Your task to perform on an android device: snooze an email in the gmail app Image 0: 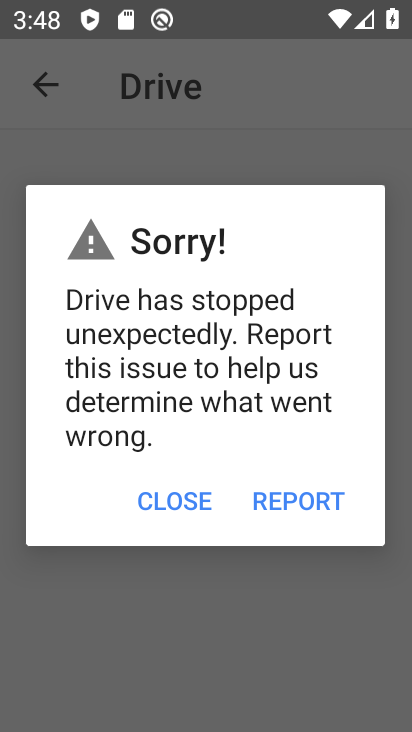
Step 0: press home button
Your task to perform on an android device: snooze an email in the gmail app Image 1: 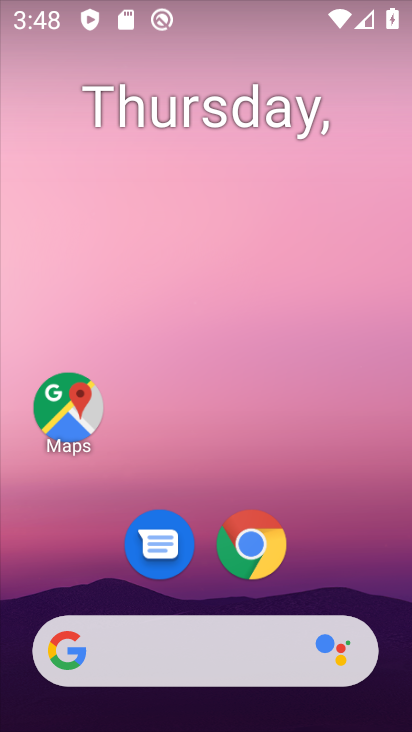
Step 1: drag from (397, 388) to (407, 21)
Your task to perform on an android device: snooze an email in the gmail app Image 2: 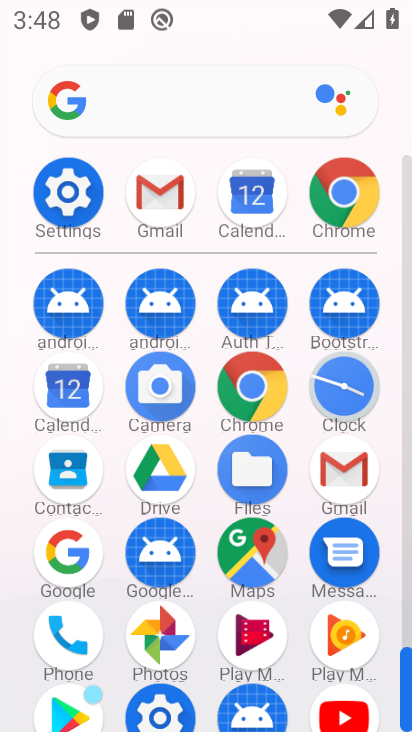
Step 2: click (153, 203)
Your task to perform on an android device: snooze an email in the gmail app Image 3: 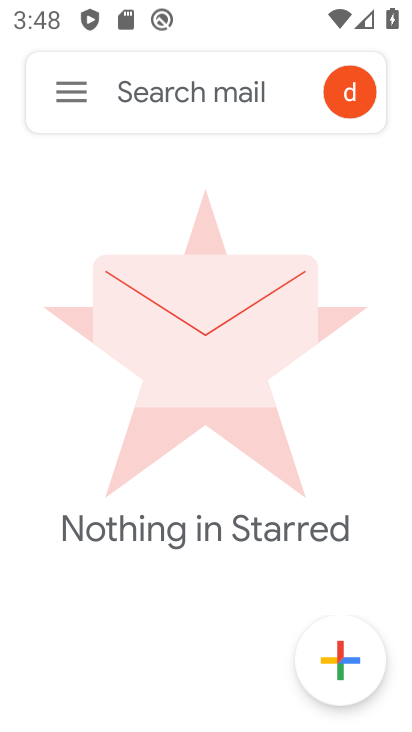
Step 3: drag from (170, 468) to (245, 150)
Your task to perform on an android device: snooze an email in the gmail app Image 4: 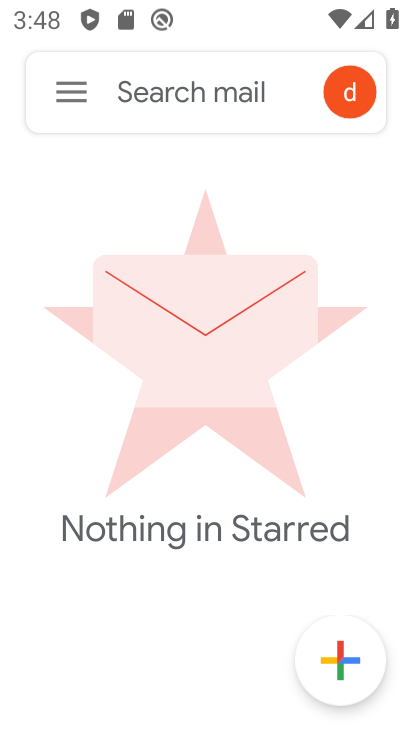
Step 4: click (212, 394)
Your task to perform on an android device: snooze an email in the gmail app Image 5: 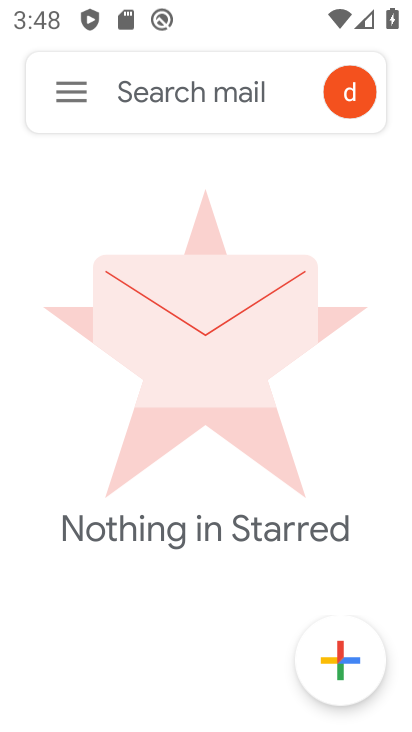
Step 5: click (61, 88)
Your task to perform on an android device: snooze an email in the gmail app Image 6: 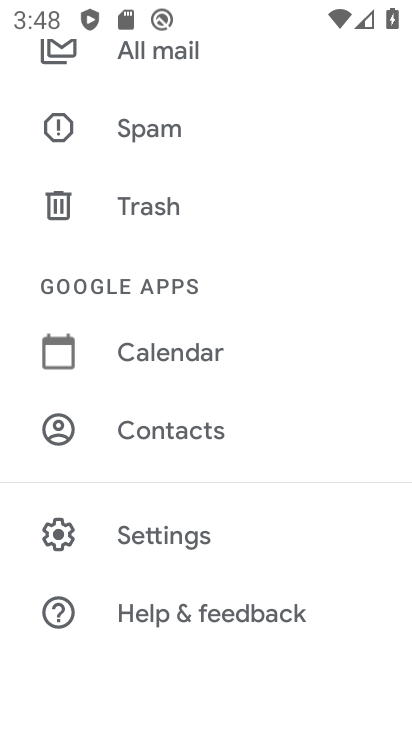
Step 6: press home button
Your task to perform on an android device: snooze an email in the gmail app Image 7: 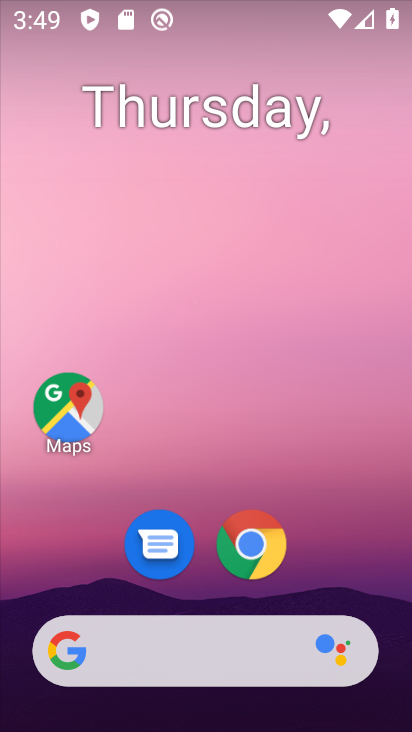
Step 7: drag from (333, 556) to (343, 243)
Your task to perform on an android device: snooze an email in the gmail app Image 8: 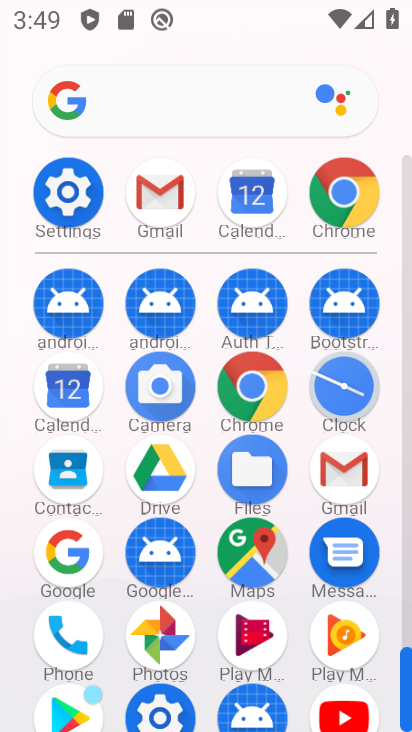
Step 8: click (143, 205)
Your task to perform on an android device: snooze an email in the gmail app Image 9: 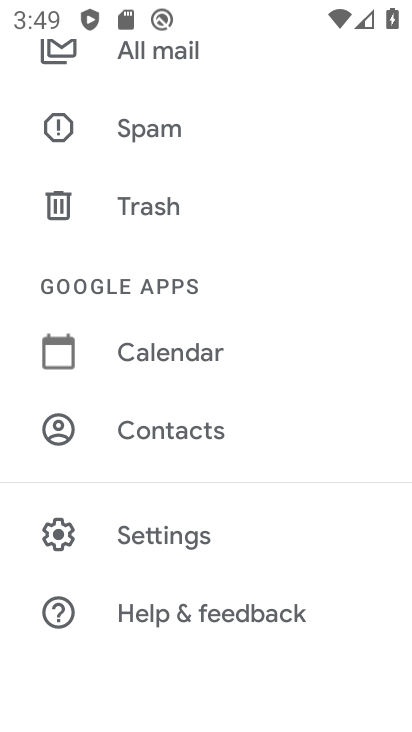
Step 9: click (183, 56)
Your task to perform on an android device: snooze an email in the gmail app Image 10: 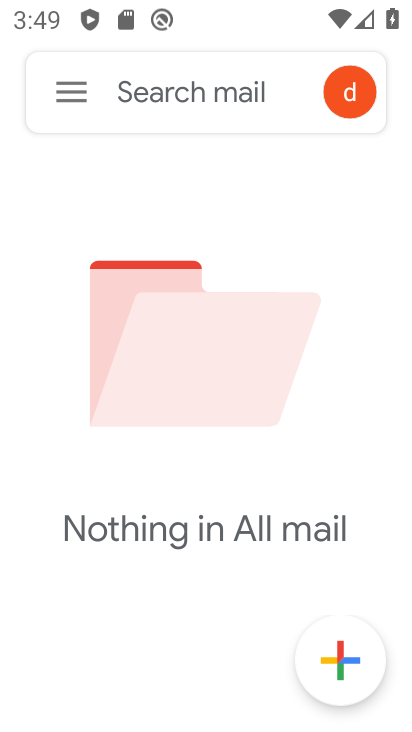
Step 10: task complete